Your task to perform on an android device: Show me popular games on the Play Store Image 0: 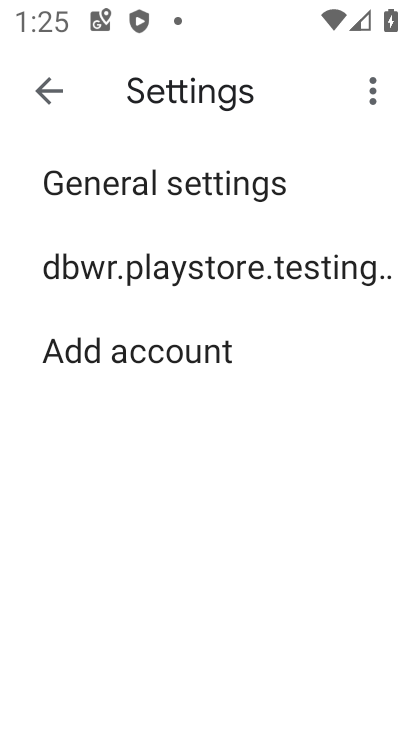
Step 0: press home button
Your task to perform on an android device: Show me popular games on the Play Store Image 1: 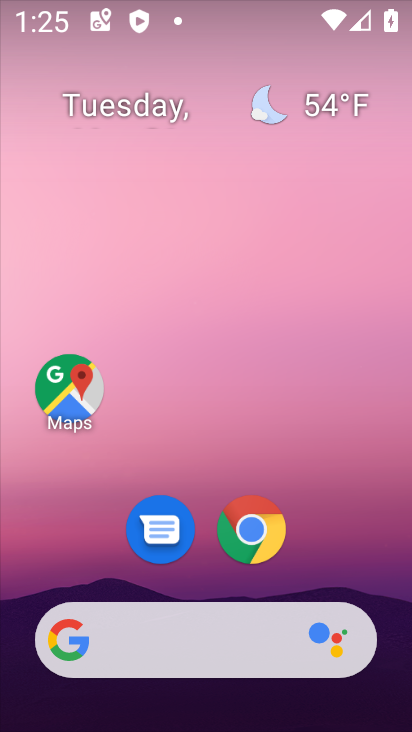
Step 1: drag from (322, 576) to (251, 138)
Your task to perform on an android device: Show me popular games on the Play Store Image 2: 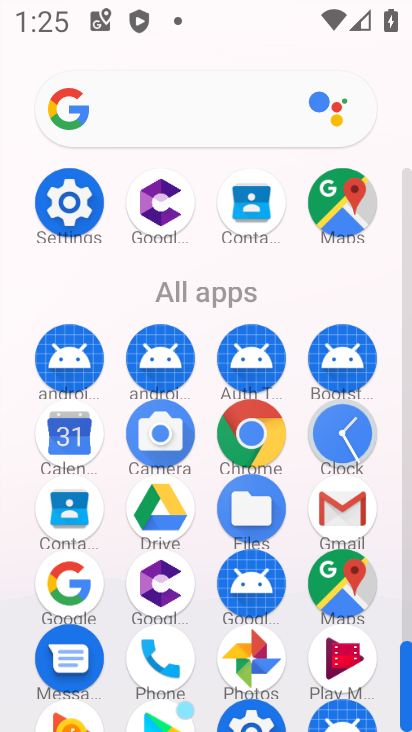
Step 2: drag from (127, 565) to (137, 300)
Your task to perform on an android device: Show me popular games on the Play Store Image 3: 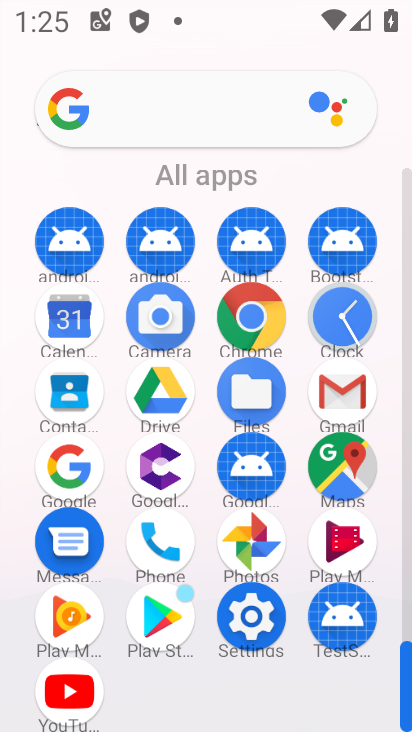
Step 3: click (162, 616)
Your task to perform on an android device: Show me popular games on the Play Store Image 4: 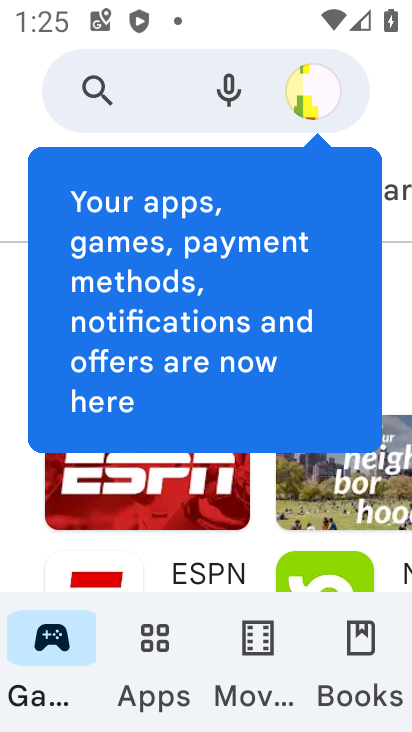
Step 4: click (120, 82)
Your task to perform on an android device: Show me popular games on the Play Store Image 5: 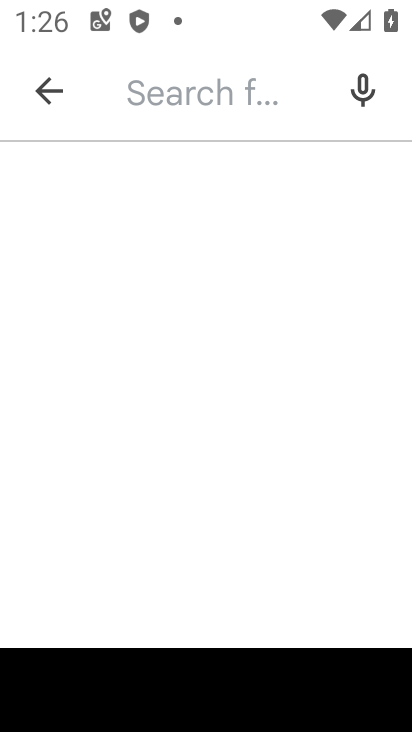
Step 5: type "popular games"
Your task to perform on an android device: Show me popular games on the Play Store Image 6: 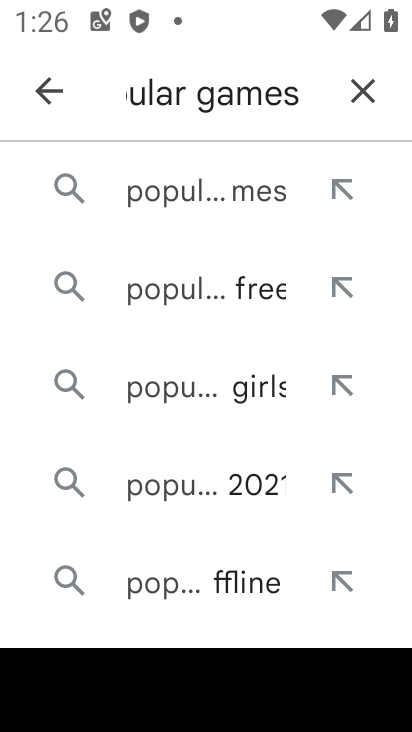
Step 6: click (242, 184)
Your task to perform on an android device: Show me popular games on the Play Store Image 7: 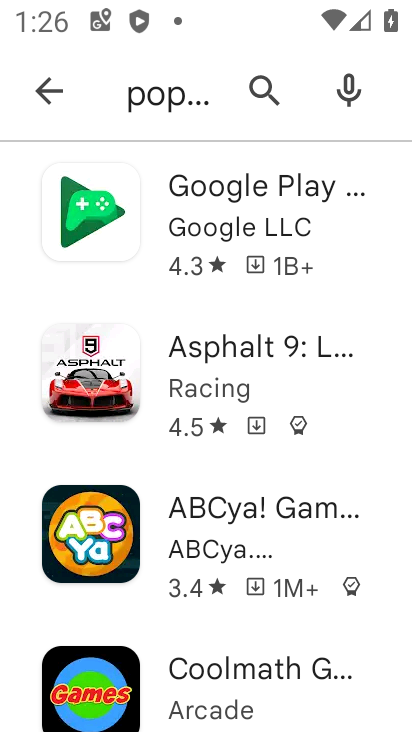
Step 7: task complete